Your task to perform on an android device: Open network settings Image 0: 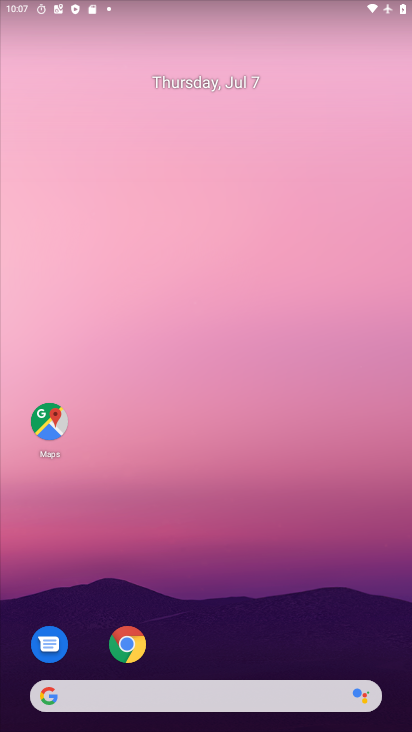
Step 0: drag from (328, 602) to (225, 75)
Your task to perform on an android device: Open network settings Image 1: 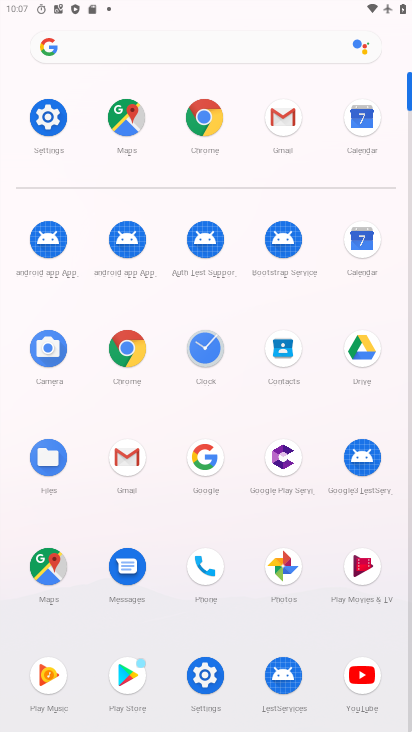
Step 1: click (51, 112)
Your task to perform on an android device: Open network settings Image 2: 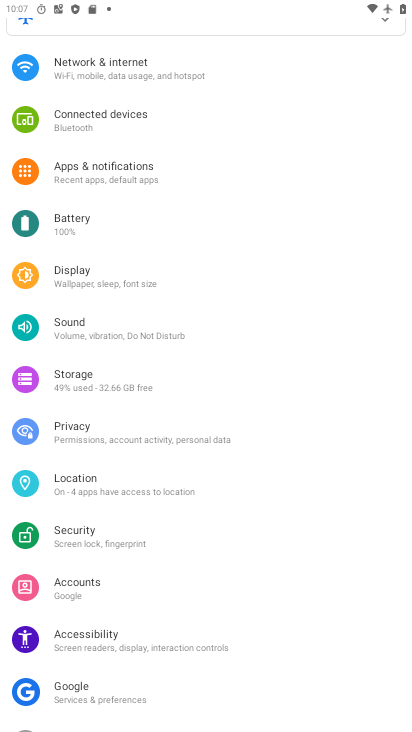
Step 2: click (113, 76)
Your task to perform on an android device: Open network settings Image 3: 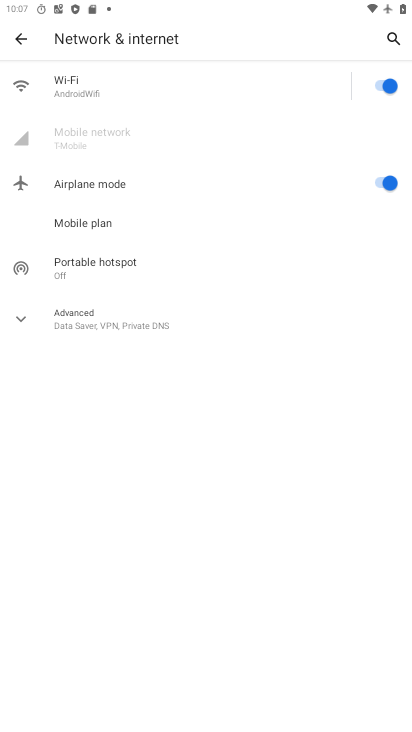
Step 3: click (135, 86)
Your task to perform on an android device: Open network settings Image 4: 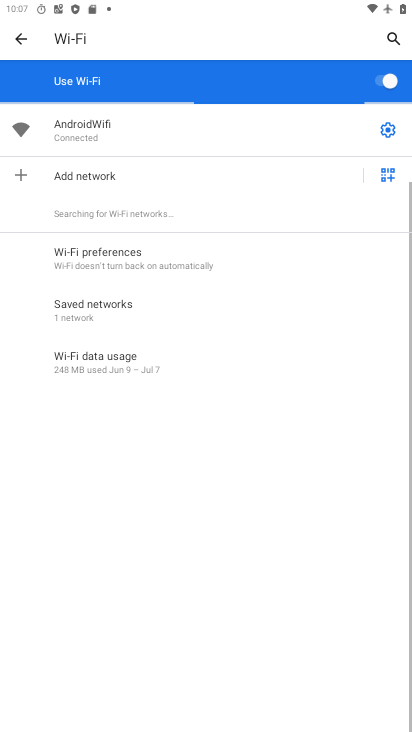
Step 4: click (14, 42)
Your task to perform on an android device: Open network settings Image 5: 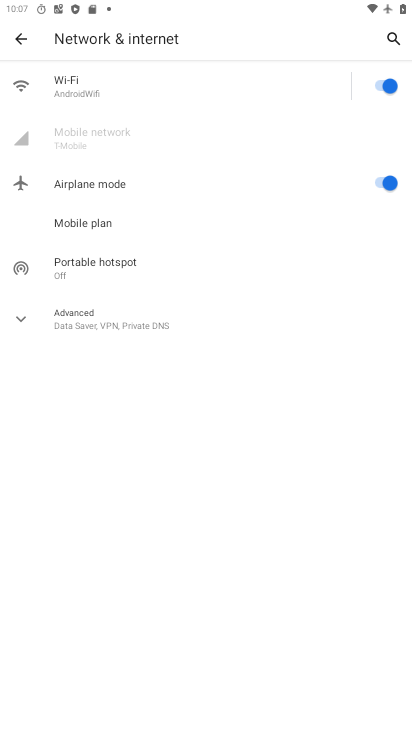
Step 5: task complete